Your task to perform on an android device: When is my next appointment? Image 0: 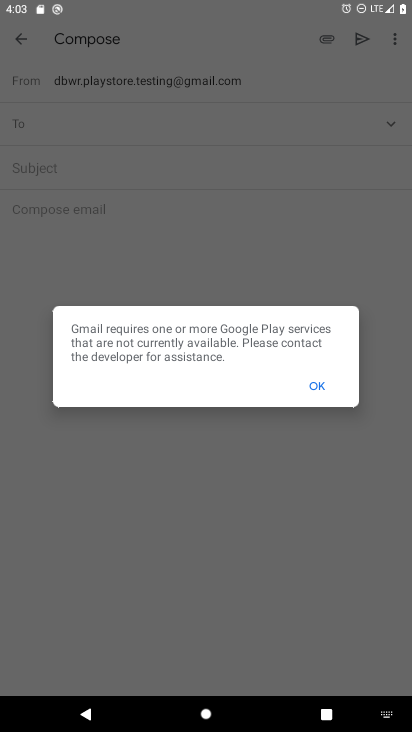
Step 0: press home button
Your task to perform on an android device: When is my next appointment? Image 1: 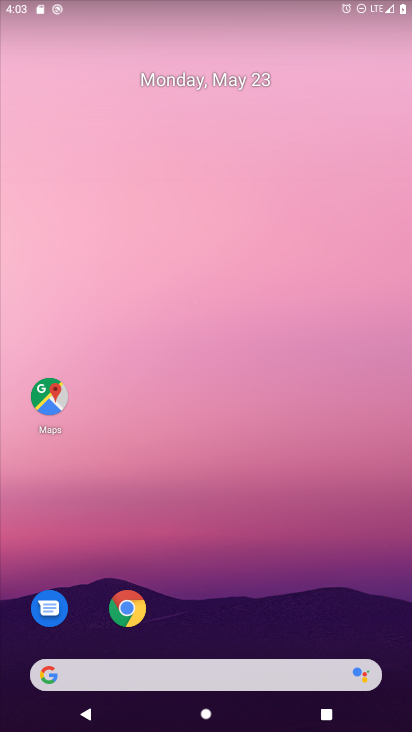
Step 1: drag from (240, 609) to (185, 207)
Your task to perform on an android device: When is my next appointment? Image 2: 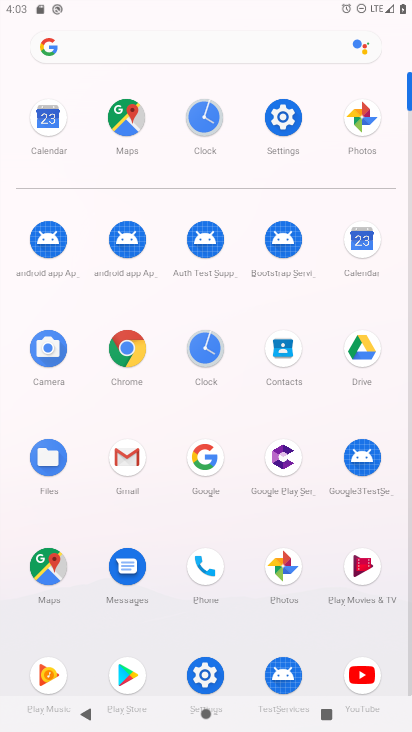
Step 2: click (360, 239)
Your task to perform on an android device: When is my next appointment? Image 3: 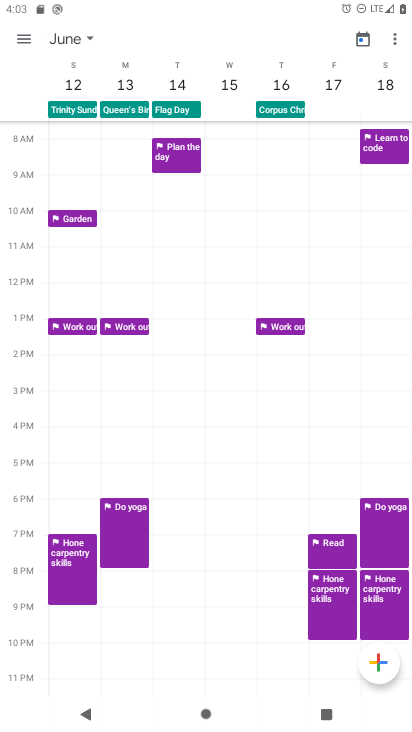
Step 3: click (363, 38)
Your task to perform on an android device: When is my next appointment? Image 4: 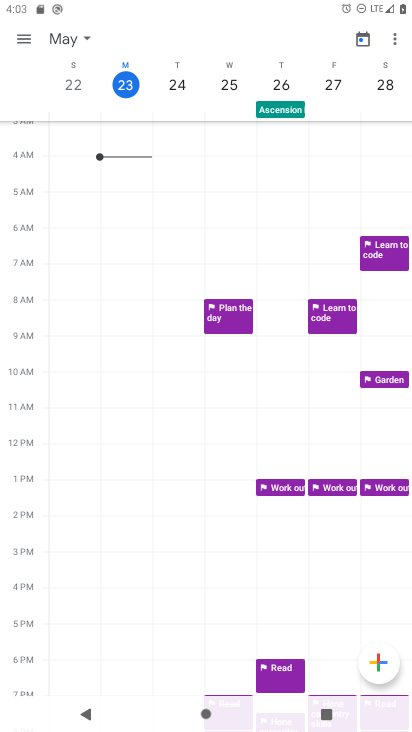
Step 4: click (84, 37)
Your task to perform on an android device: When is my next appointment? Image 5: 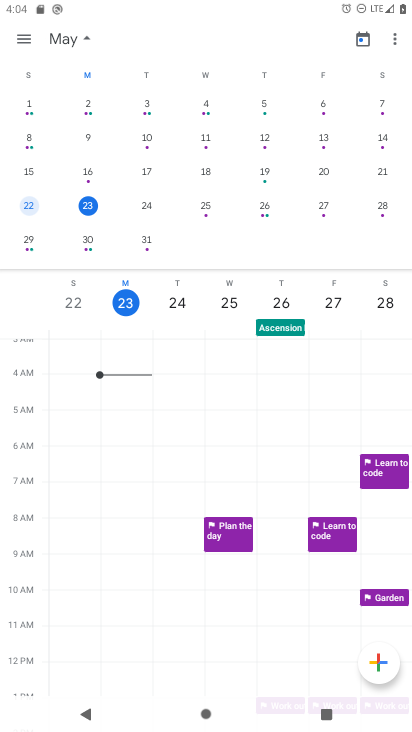
Step 5: click (204, 209)
Your task to perform on an android device: When is my next appointment? Image 6: 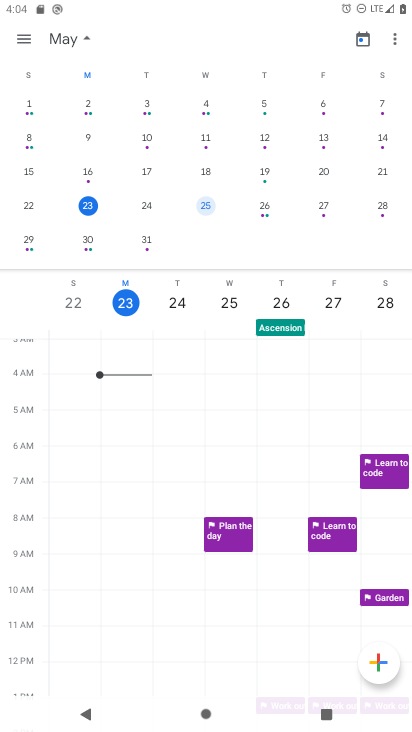
Step 6: click (27, 43)
Your task to perform on an android device: When is my next appointment? Image 7: 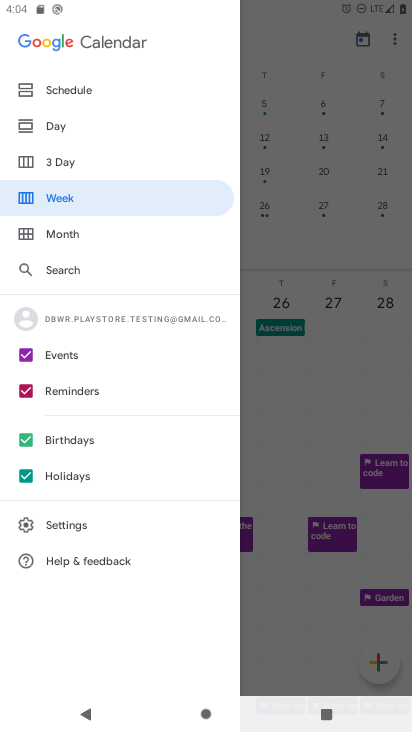
Step 7: click (75, 191)
Your task to perform on an android device: When is my next appointment? Image 8: 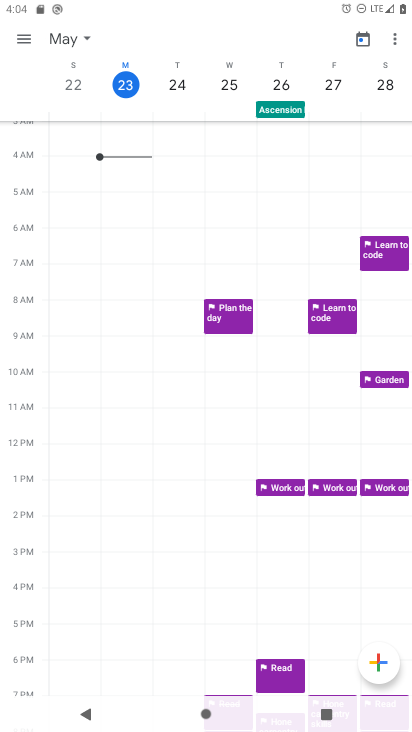
Step 8: task complete